Your task to perform on an android device: make emails show in primary in the gmail app Image 0: 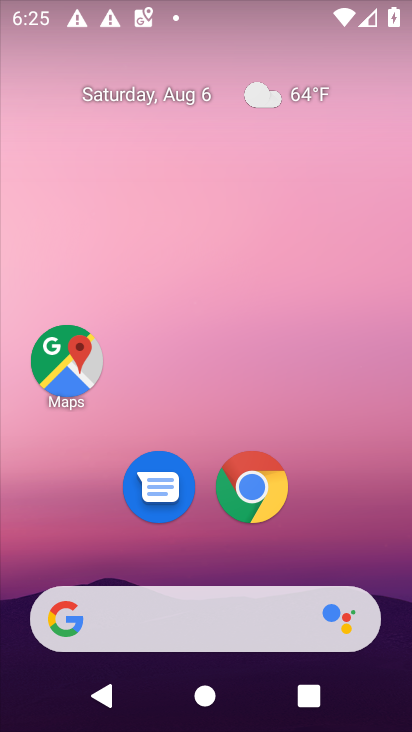
Step 0: drag from (198, 574) to (268, 2)
Your task to perform on an android device: make emails show in primary in the gmail app Image 1: 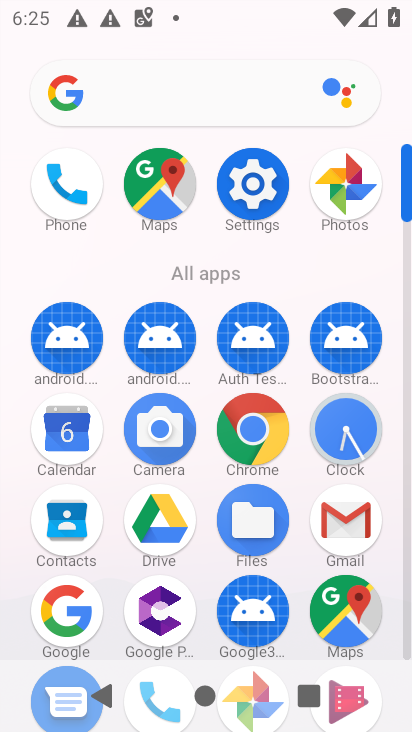
Step 1: click (360, 527)
Your task to perform on an android device: make emails show in primary in the gmail app Image 2: 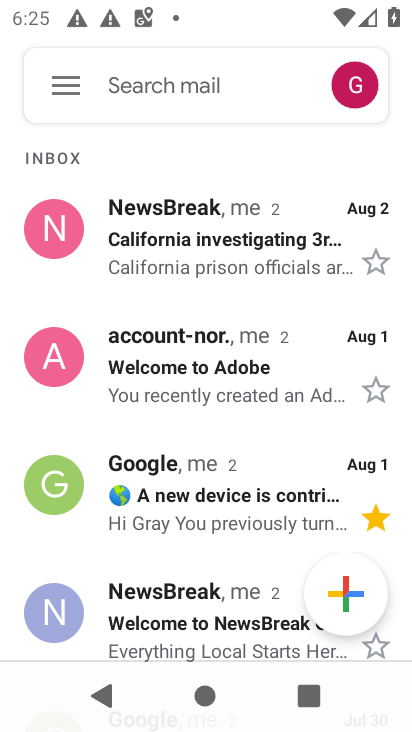
Step 2: click (47, 67)
Your task to perform on an android device: make emails show in primary in the gmail app Image 3: 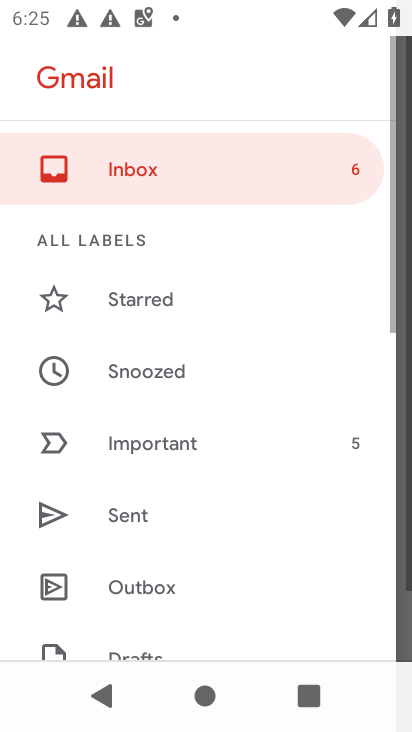
Step 3: drag from (158, 573) to (248, 130)
Your task to perform on an android device: make emails show in primary in the gmail app Image 4: 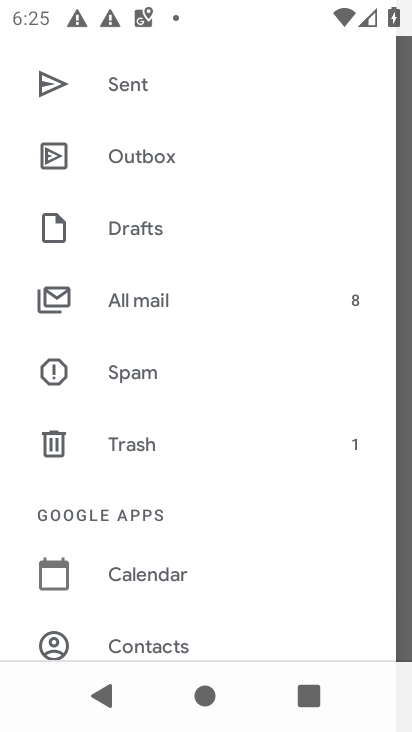
Step 4: drag from (140, 587) to (200, 78)
Your task to perform on an android device: make emails show in primary in the gmail app Image 5: 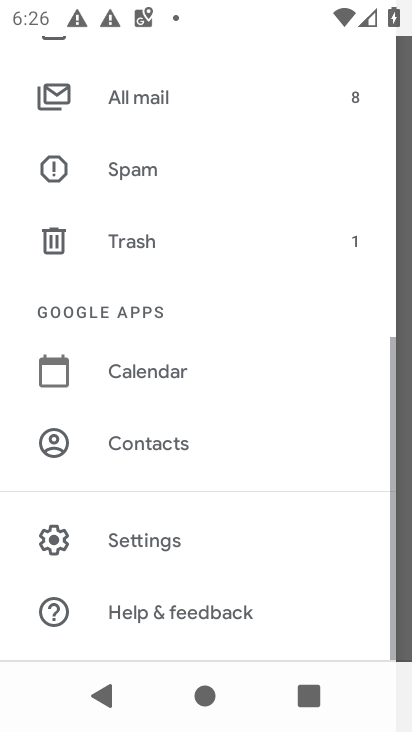
Step 5: click (138, 542)
Your task to perform on an android device: make emails show in primary in the gmail app Image 6: 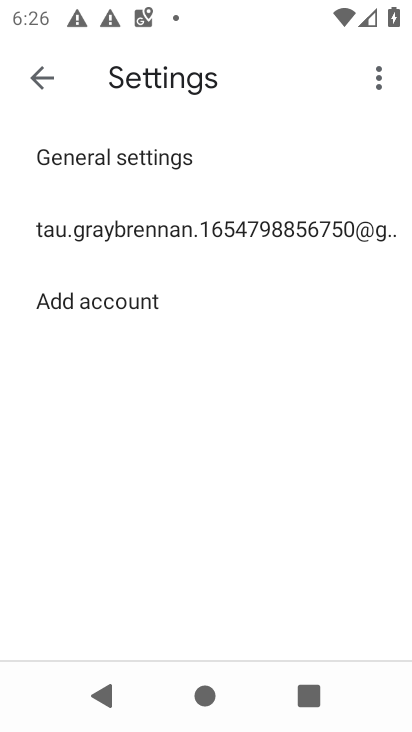
Step 6: click (133, 246)
Your task to perform on an android device: make emails show in primary in the gmail app Image 7: 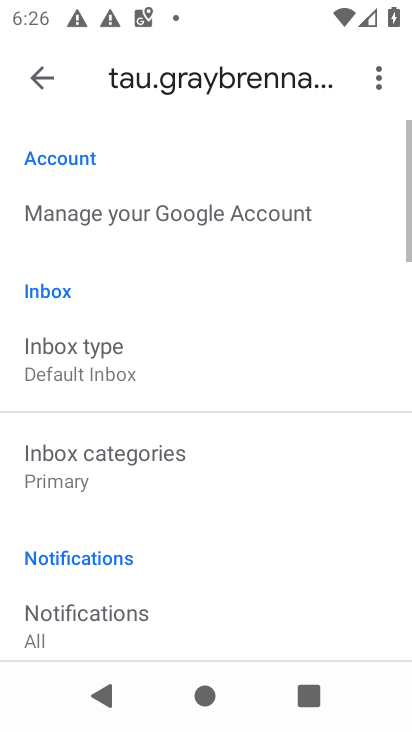
Step 7: click (106, 471)
Your task to perform on an android device: make emails show in primary in the gmail app Image 8: 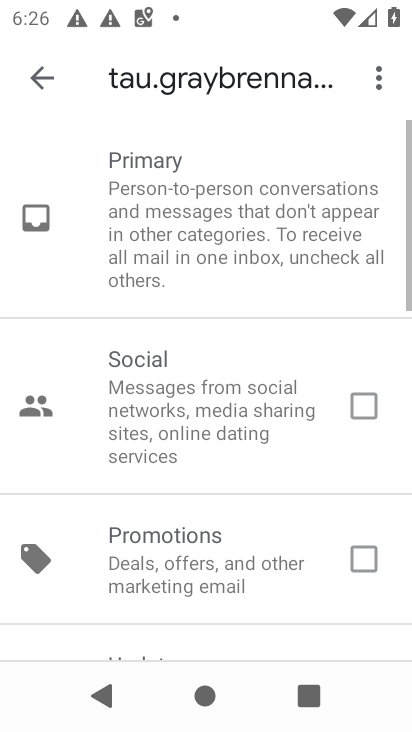
Step 8: drag from (321, 575) to (358, 127)
Your task to perform on an android device: make emails show in primary in the gmail app Image 9: 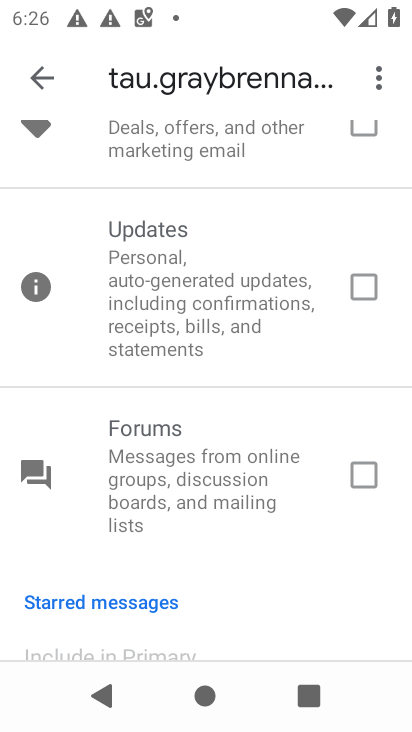
Step 9: drag from (321, 558) to (318, 150)
Your task to perform on an android device: make emails show in primary in the gmail app Image 10: 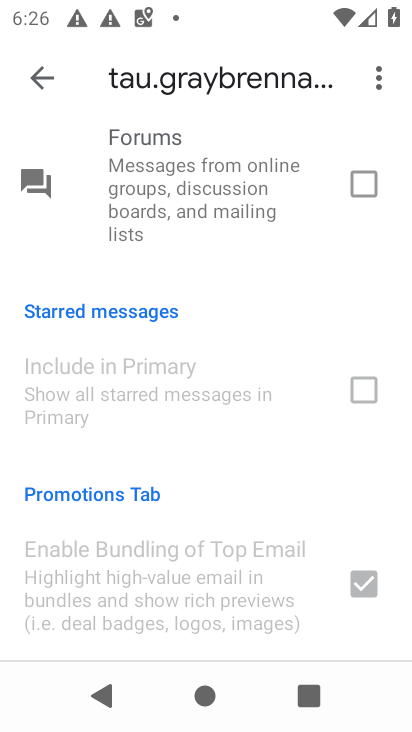
Step 10: click (355, 377)
Your task to perform on an android device: make emails show in primary in the gmail app Image 11: 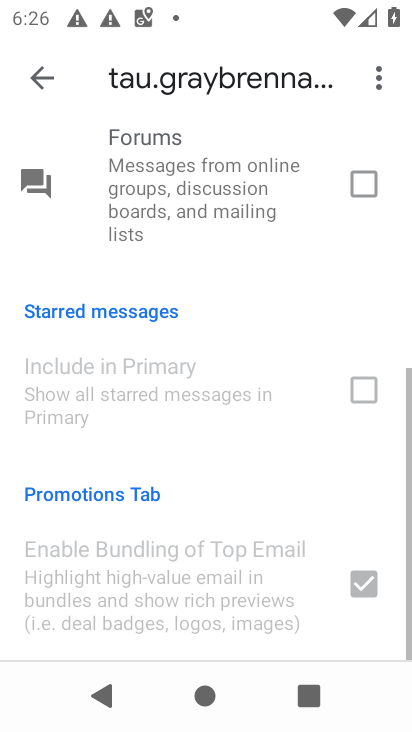
Step 11: click (360, 162)
Your task to perform on an android device: make emails show in primary in the gmail app Image 12: 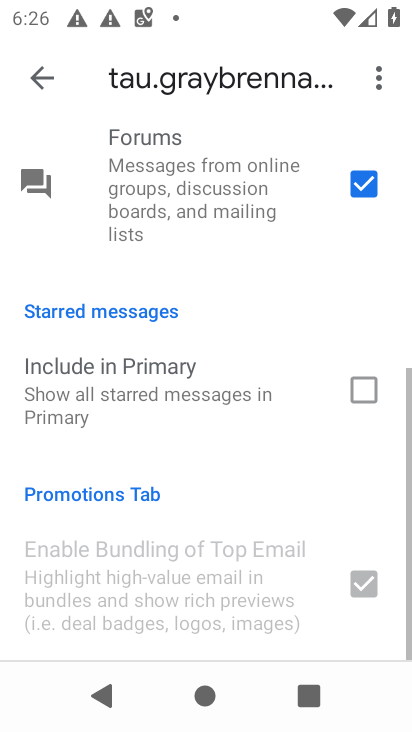
Step 12: click (354, 401)
Your task to perform on an android device: make emails show in primary in the gmail app Image 13: 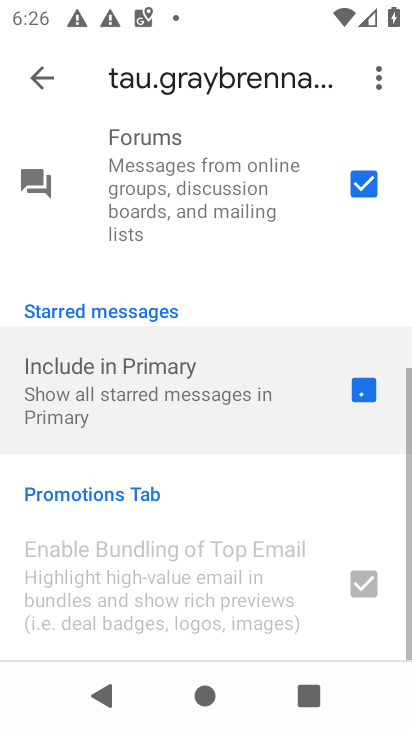
Step 13: drag from (214, 237) to (194, 679)
Your task to perform on an android device: make emails show in primary in the gmail app Image 14: 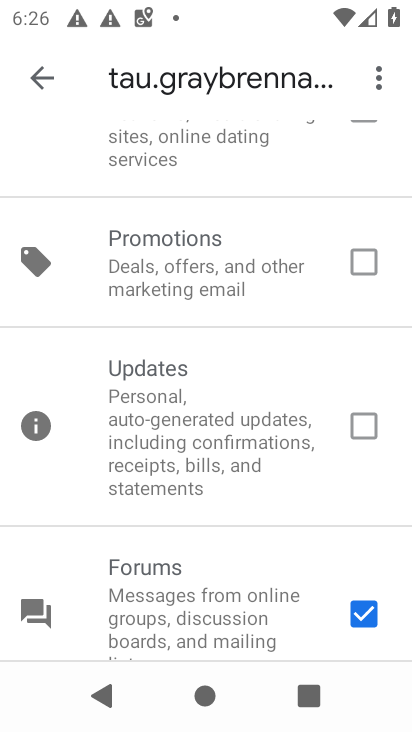
Step 14: click (358, 464)
Your task to perform on an android device: make emails show in primary in the gmail app Image 15: 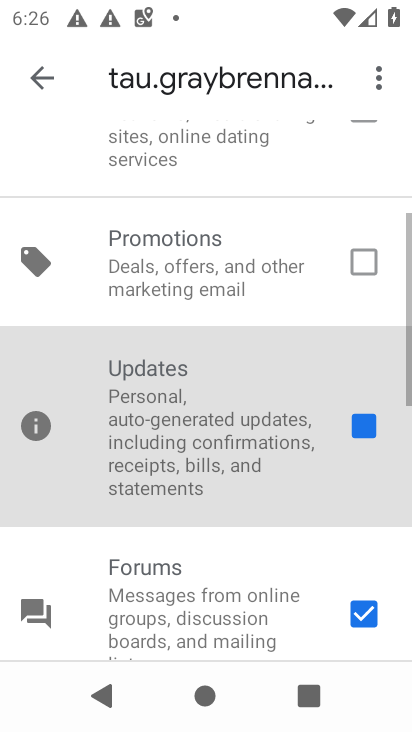
Step 15: click (348, 265)
Your task to perform on an android device: make emails show in primary in the gmail app Image 16: 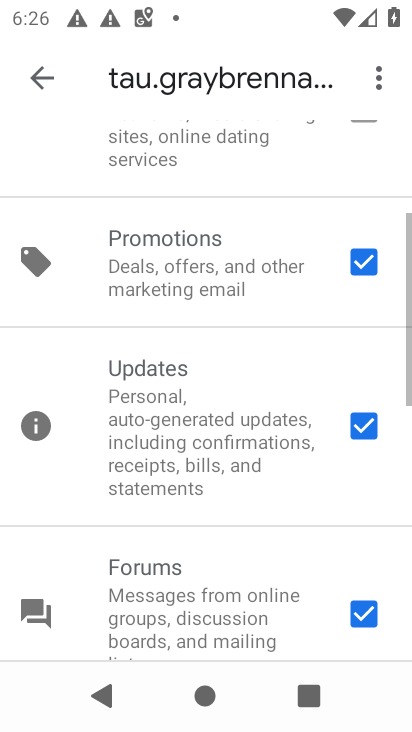
Step 16: drag from (150, 458) to (150, 548)
Your task to perform on an android device: make emails show in primary in the gmail app Image 17: 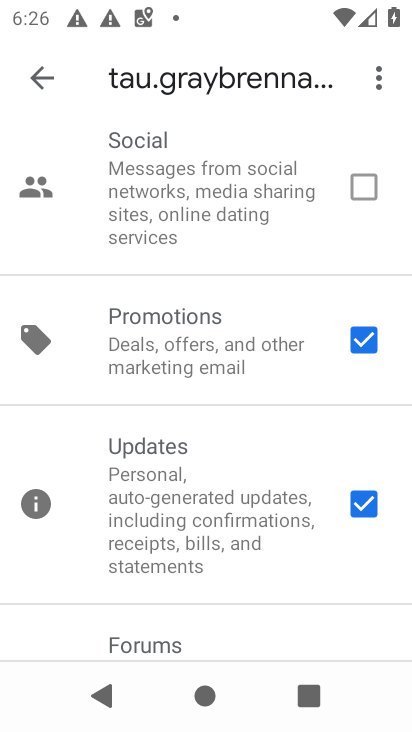
Step 17: click (367, 161)
Your task to perform on an android device: make emails show in primary in the gmail app Image 18: 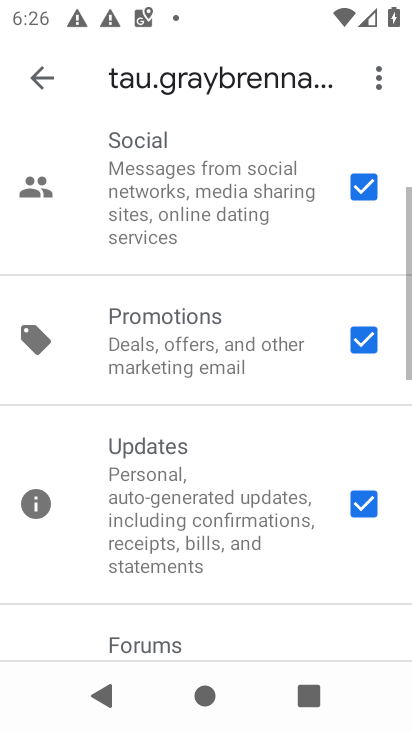
Step 18: task complete